Your task to perform on an android device: install app "Google Maps" Image 0: 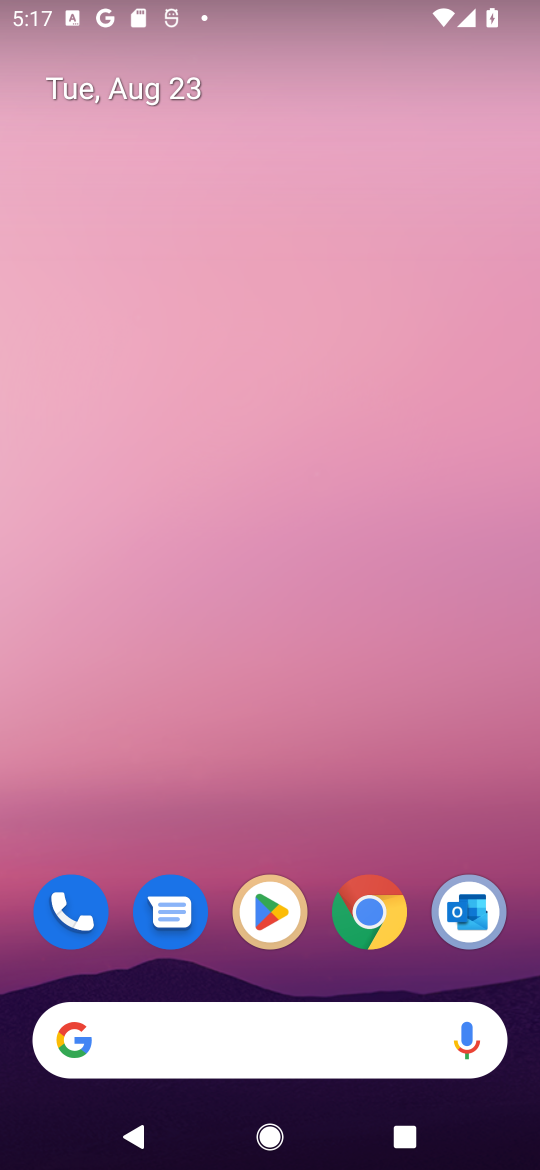
Step 0: drag from (244, 871) to (257, 214)
Your task to perform on an android device: install app "Google Maps" Image 1: 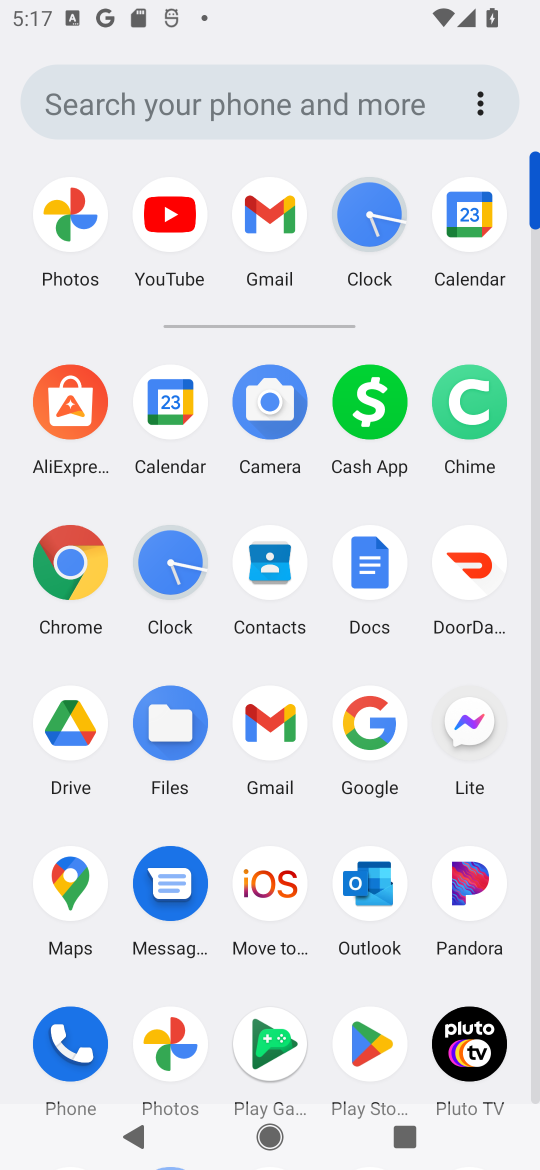
Step 1: click (373, 1030)
Your task to perform on an android device: install app "Google Maps" Image 2: 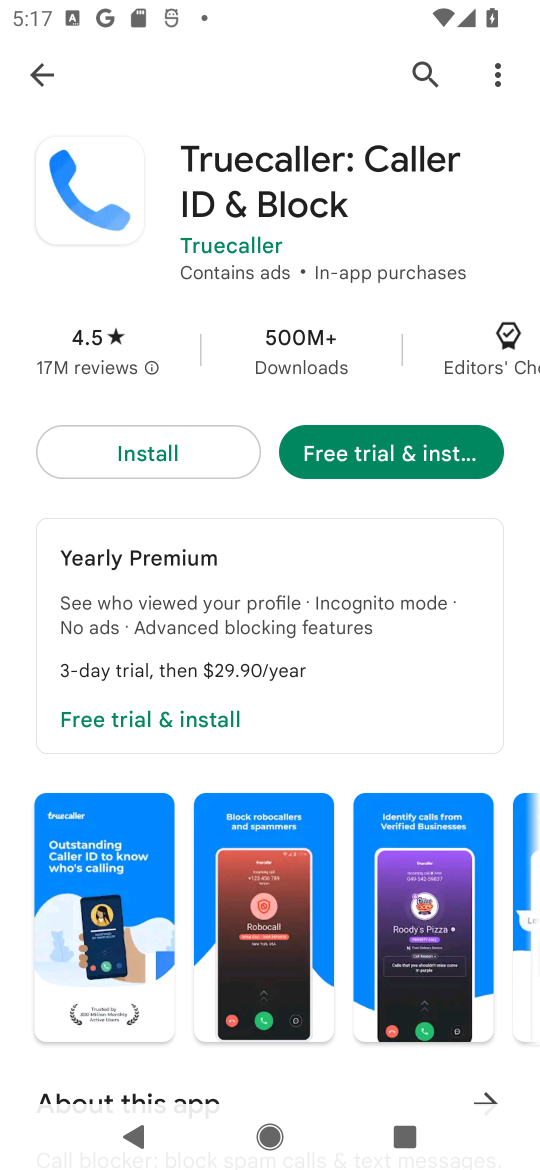
Step 2: click (20, 66)
Your task to perform on an android device: install app "Google Maps" Image 3: 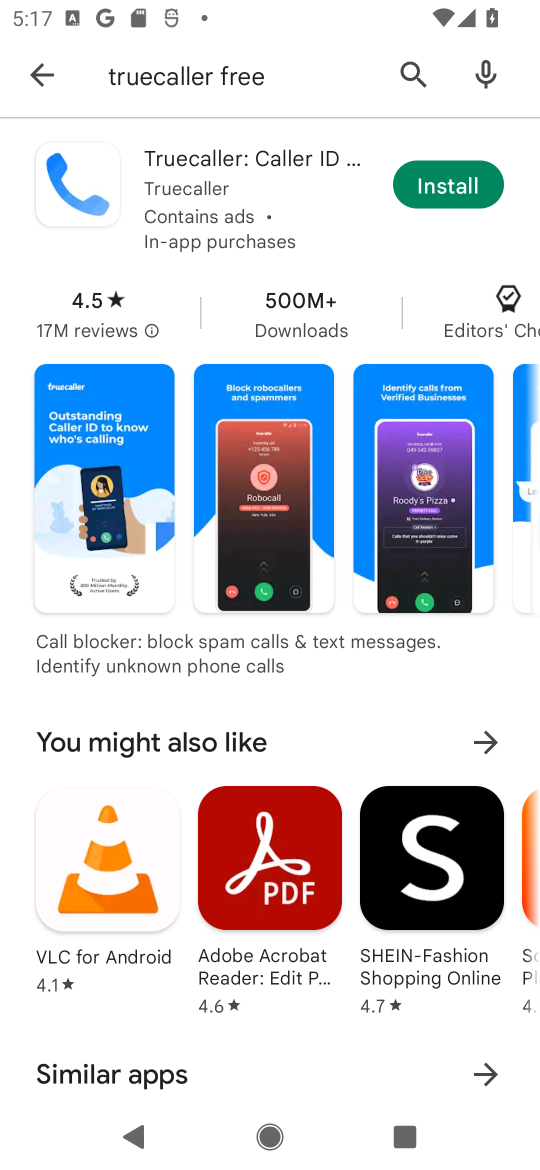
Step 3: click (30, 66)
Your task to perform on an android device: install app "Google Maps" Image 4: 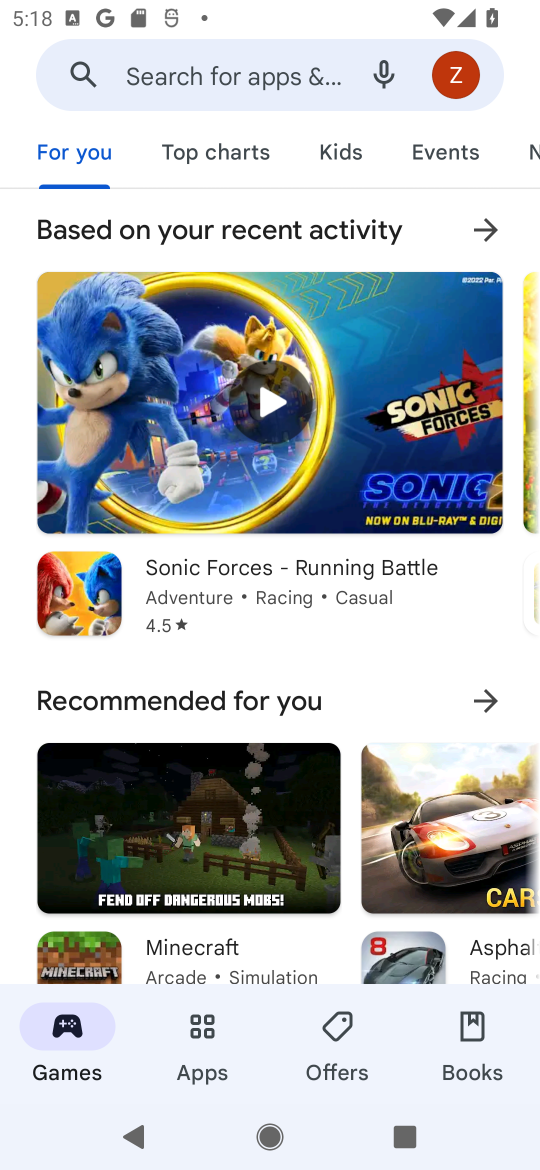
Step 4: click (249, 71)
Your task to perform on an android device: install app "Google Maps" Image 5: 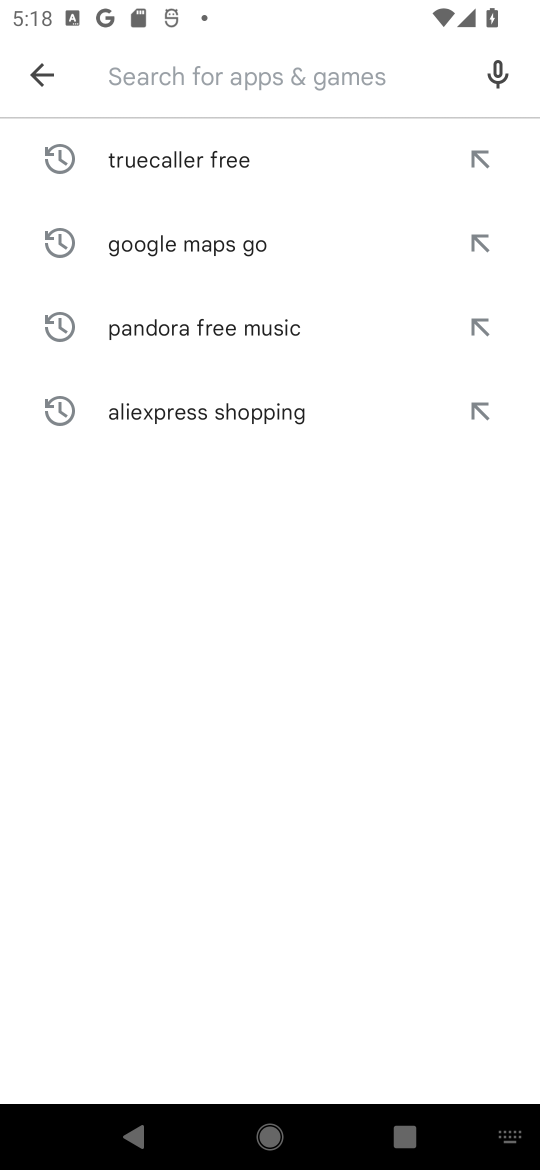
Step 5: type "Google Maps "
Your task to perform on an android device: install app "Google Maps" Image 6: 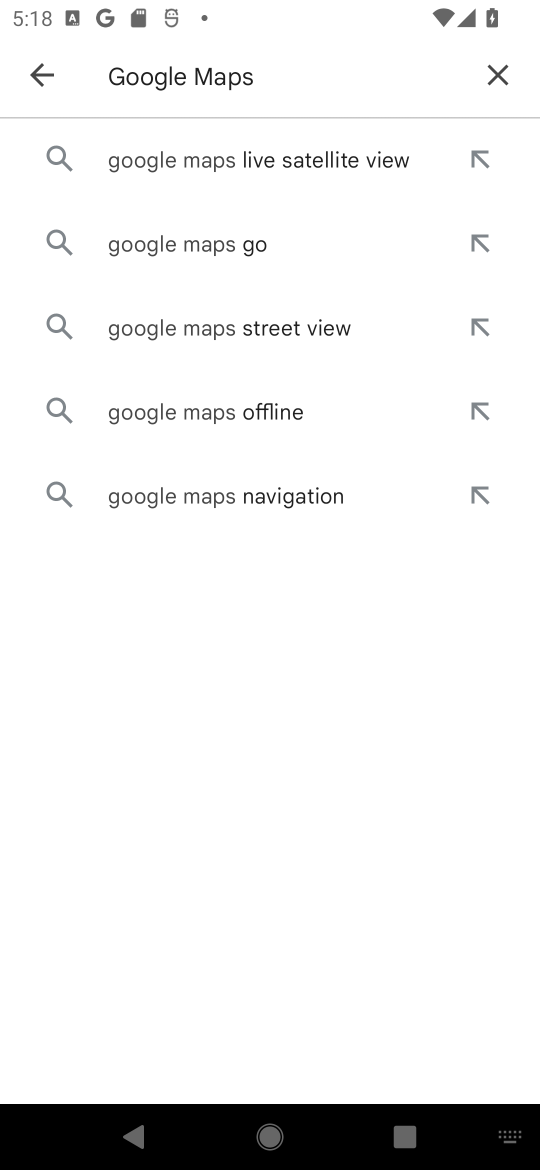
Step 6: click (353, 240)
Your task to perform on an android device: install app "Google Maps" Image 7: 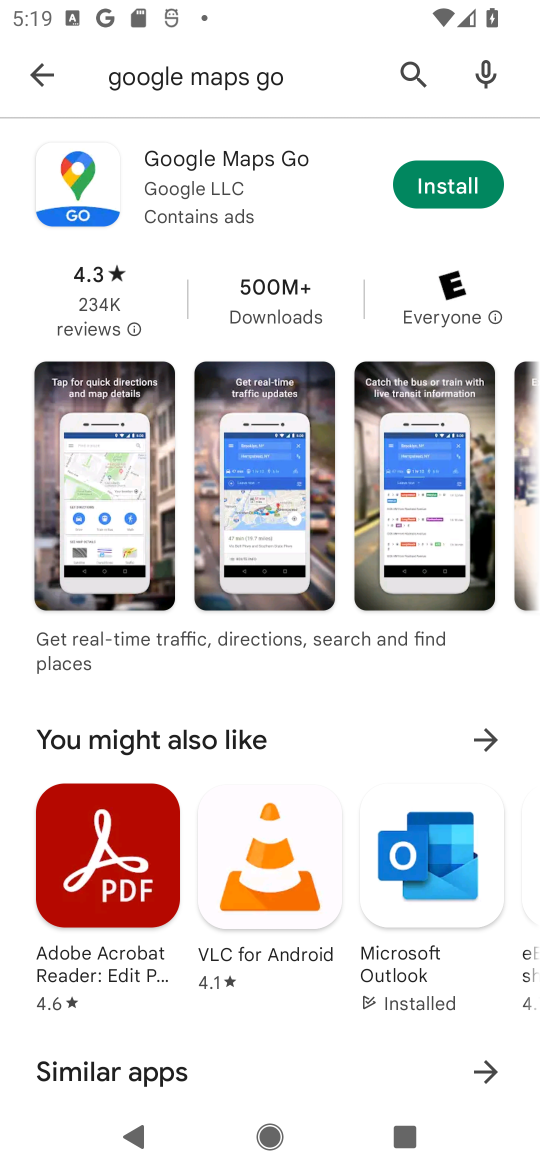
Step 7: click (419, 178)
Your task to perform on an android device: install app "Google Maps" Image 8: 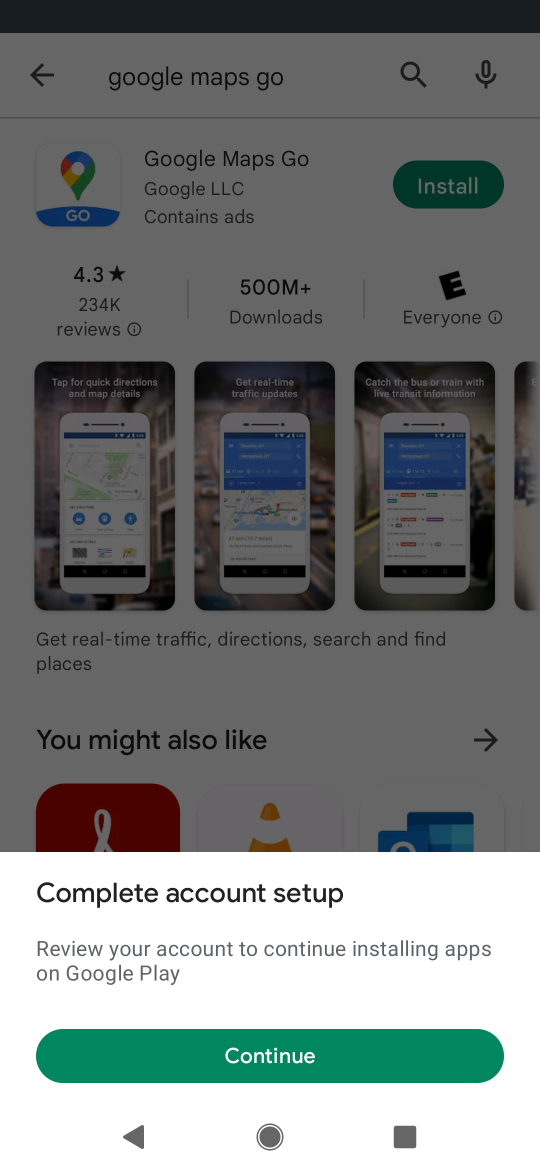
Step 8: task complete